Your task to perform on an android device: read, delete, or share a saved page in the chrome app Image 0: 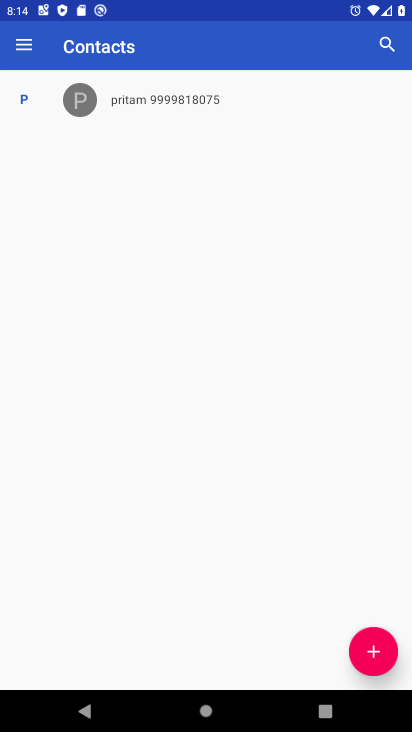
Step 0: press home button
Your task to perform on an android device: read, delete, or share a saved page in the chrome app Image 1: 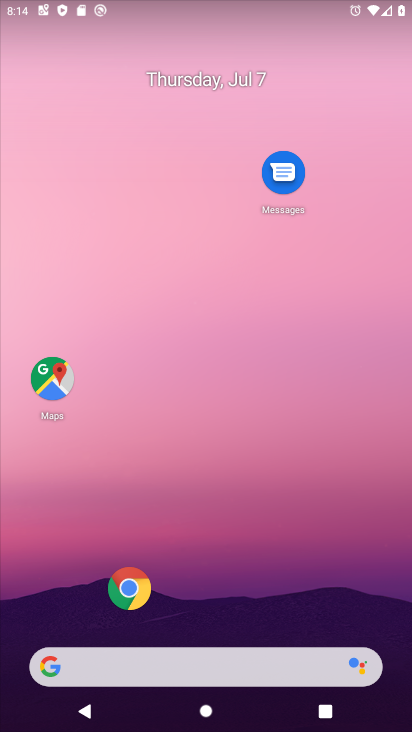
Step 1: click (138, 583)
Your task to perform on an android device: read, delete, or share a saved page in the chrome app Image 2: 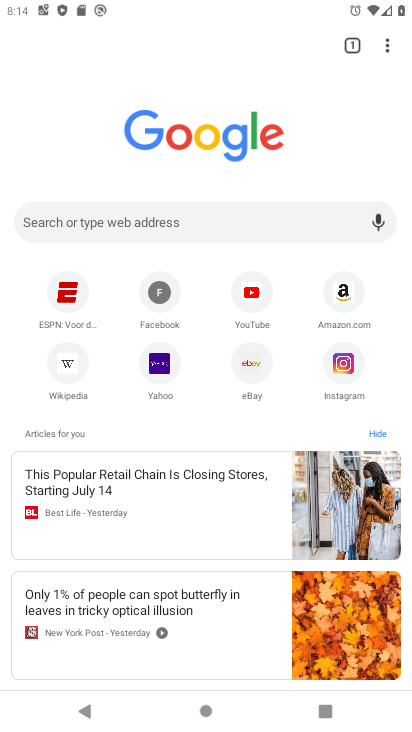
Step 2: click (392, 34)
Your task to perform on an android device: read, delete, or share a saved page in the chrome app Image 3: 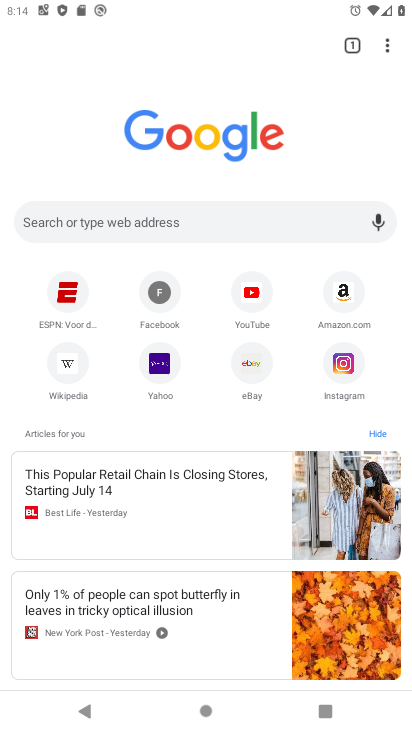
Step 3: click (385, 40)
Your task to perform on an android device: read, delete, or share a saved page in the chrome app Image 4: 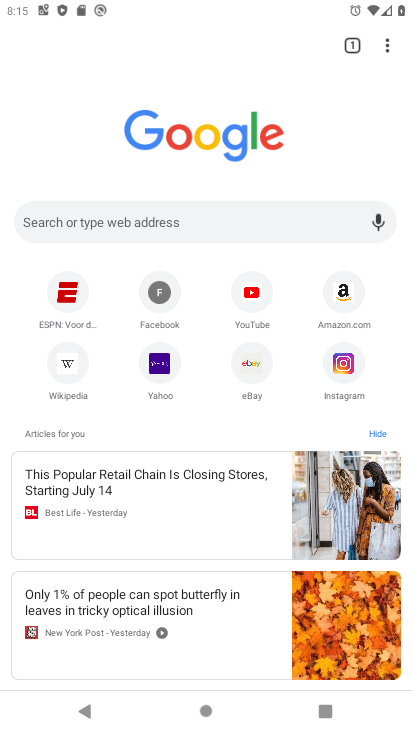
Step 4: click (385, 49)
Your task to perform on an android device: read, delete, or share a saved page in the chrome app Image 5: 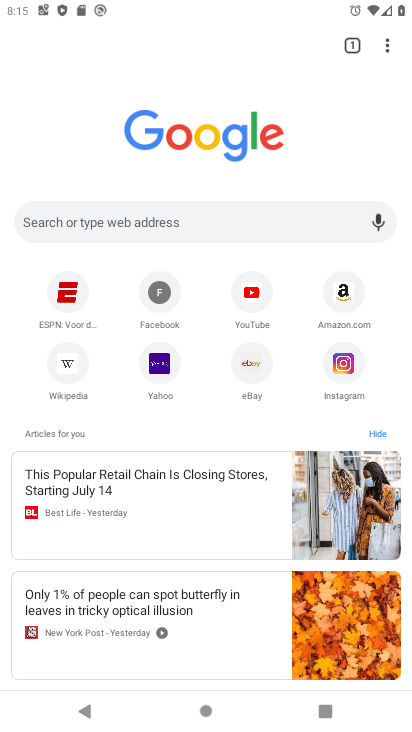
Step 5: task complete